Your task to perform on an android device: toggle show notifications on the lock screen Image 0: 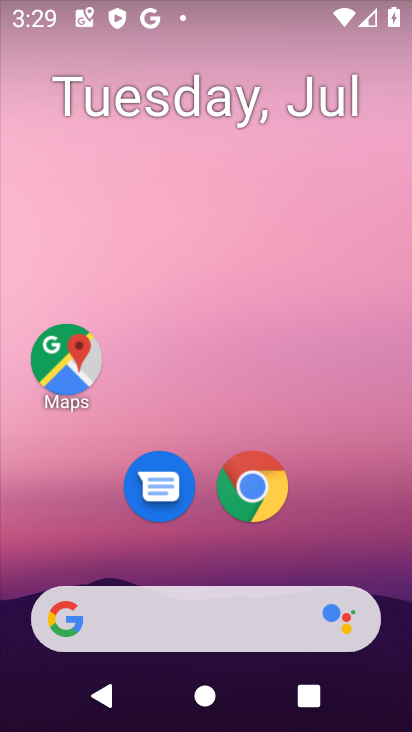
Step 0: drag from (183, 478) to (239, 7)
Your task to perform on an android device: toggle show notifications on the lock screen Image 1: 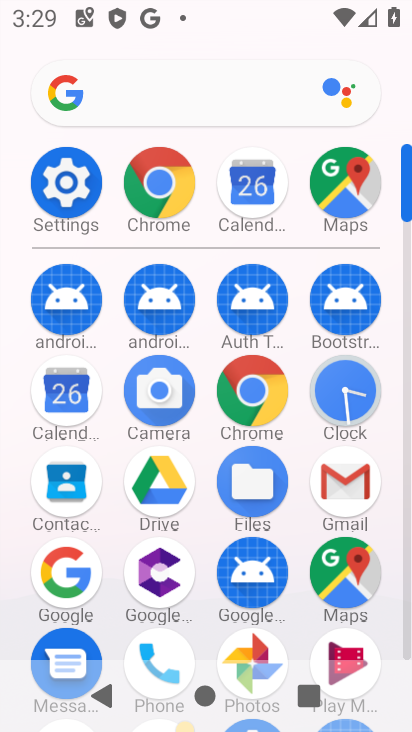
Step 1: click (72, 174)
Your task to perform on an android device: toggle show notifications on the lock screen Image 2: 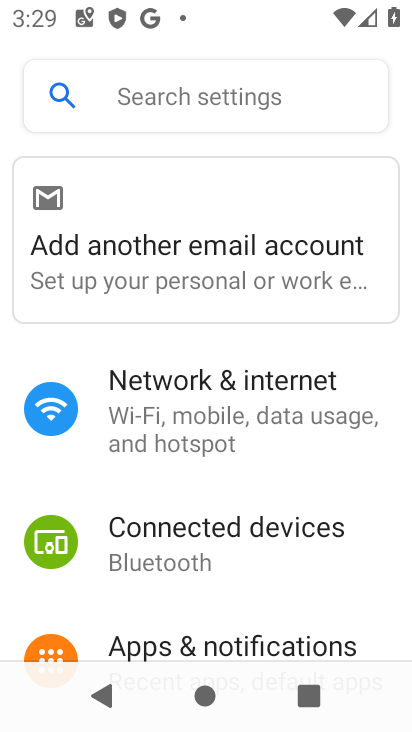
Step 2: click (220, 637)
Your task to perform on an android device: toggle show notifications on the lock screen Image 3: 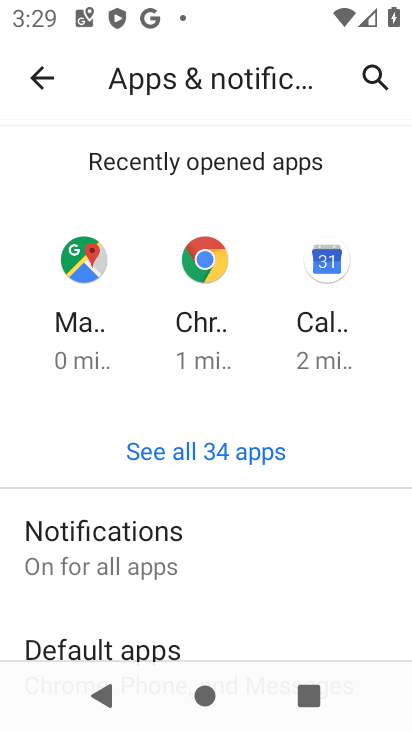
Step 3: click (132, 532)
Your task to perform on an android device: toggle show notifications on the lock screen Image 4: 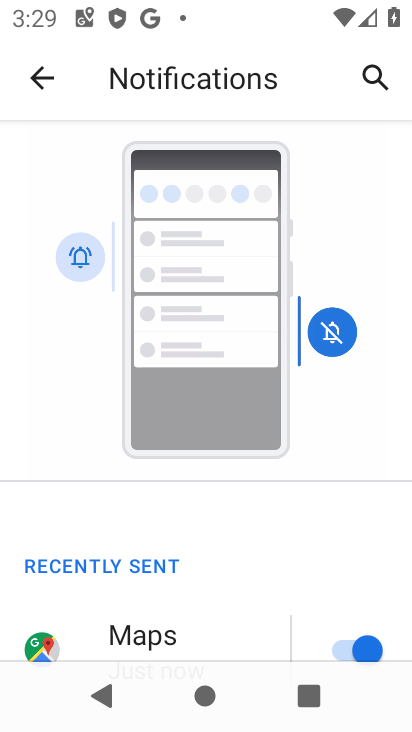
Step 4: drag from (135, 609) to (179, 206)
Your task to perform on an android device: toggle show notifications on the lock screen Image 5: 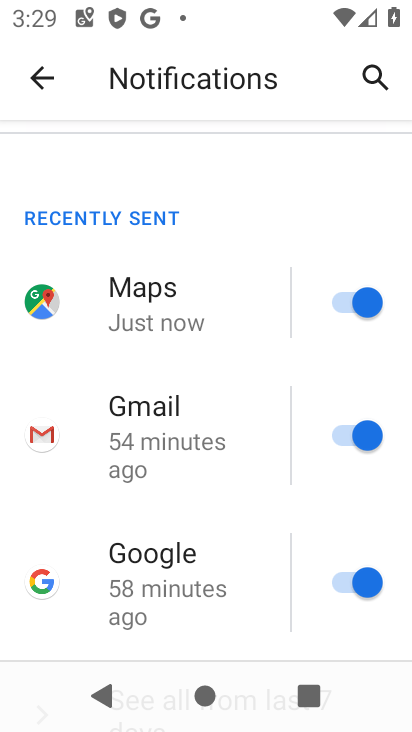
Step 5: drag from (140, 576) to (185, 60)
Your task to perform on an android device: toggle show notifications on the lock screen Image 6: 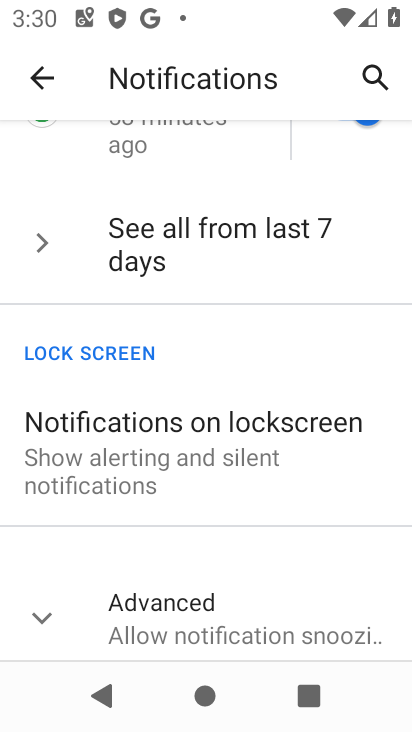
Step 6: click (157, 441)
Your task to perform on an android device: toggle show notifications on the lock screen Image 7: 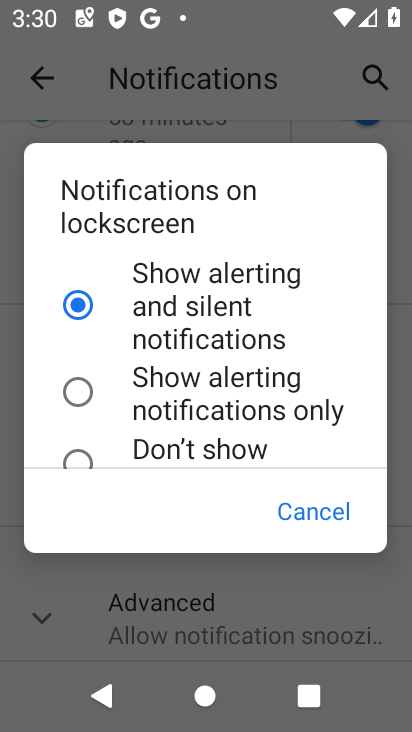
Step 7: task complete